Your task to perform on an android device: change text size in settings app Image 0: 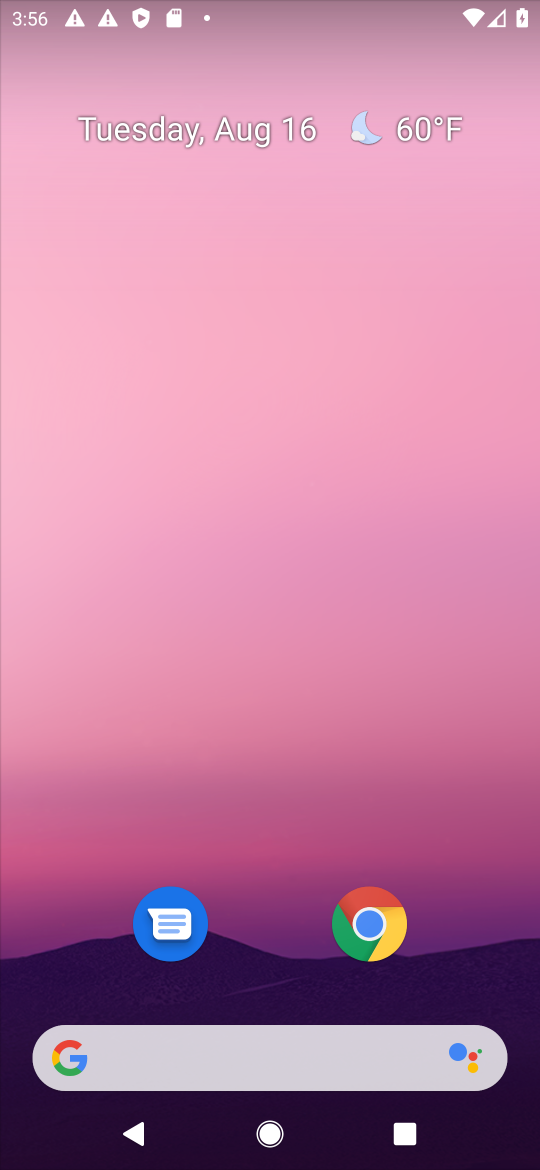
Step 0: drag from (244, 979) to (245, 147)
Your task to perform on an android device: change text size in settings app Image 1: 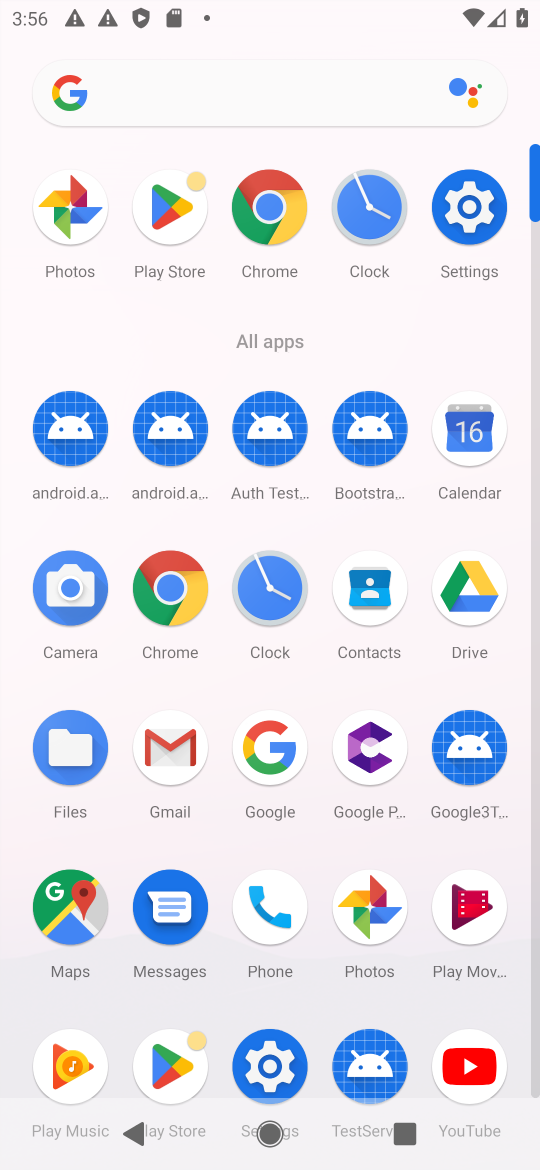
Step 1: click (486, 218)
Your task to perform on an android device: change text size in settings app Image 2: 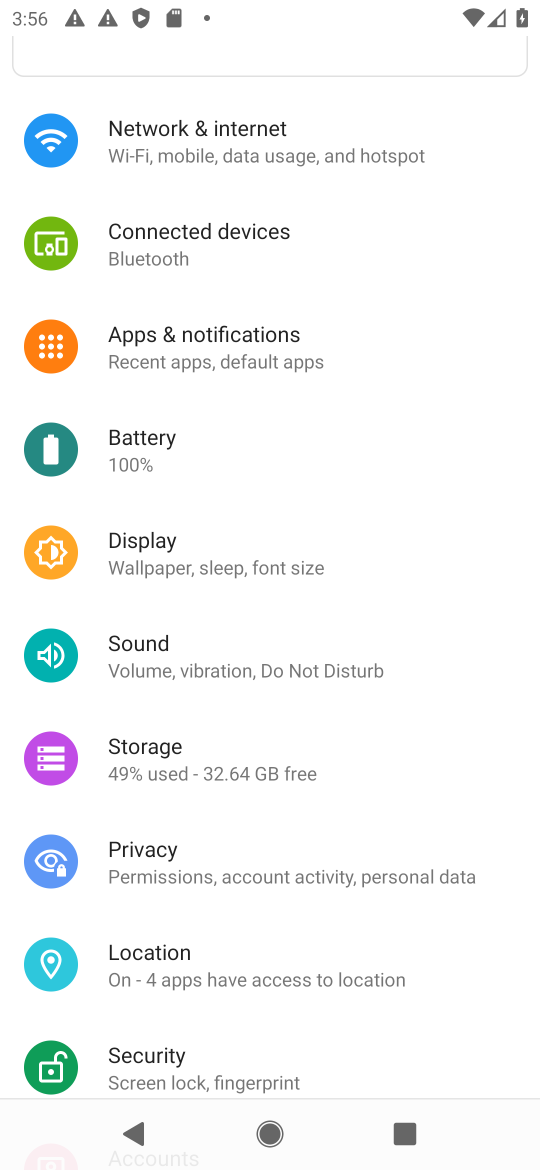
Step 2: click (121, 559)
Your task to perform on an android device: change text size in settings app Image 3: 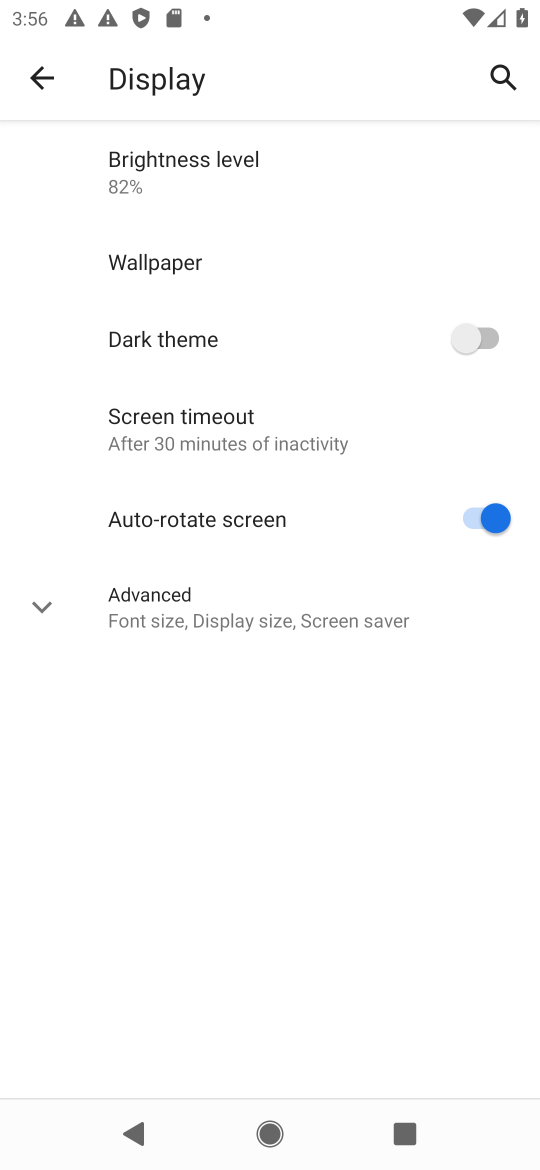
Step 3: click (194, 618)
Your task to perform on an android device: change text size in settings app Image 4: 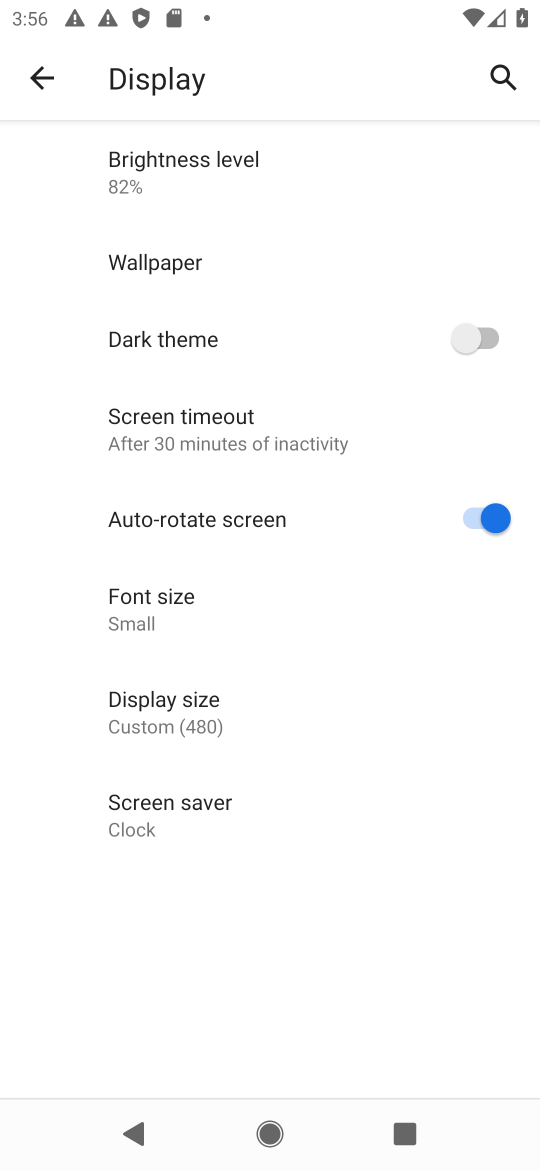
Step 4: click (198, 612)
Your task to perform on an android device: change text size in settings app Image 5: 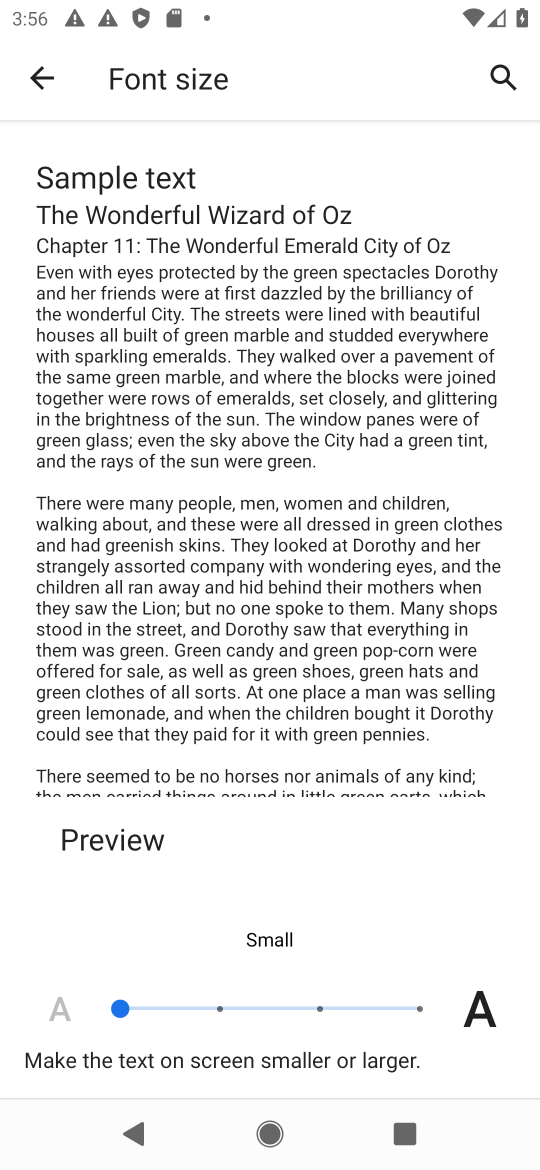
Step 5: click (223, 982)
Your task to perform on an android device: change text size in settings app Image 6: 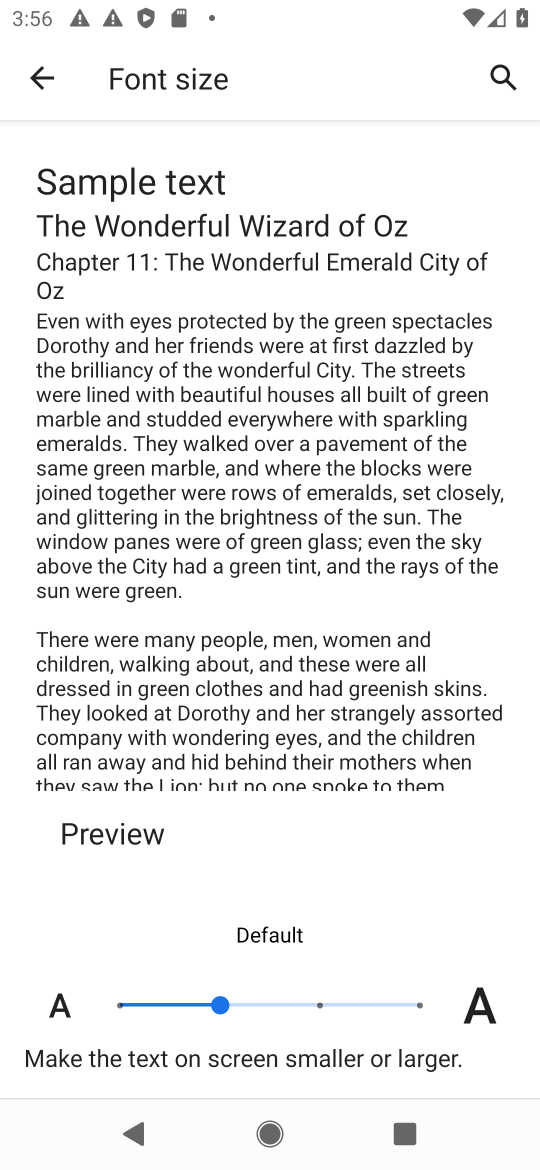
Step 6: task complete